Your task to perform on an android device: Search for vegetarian restaurants on Maps Image 0: 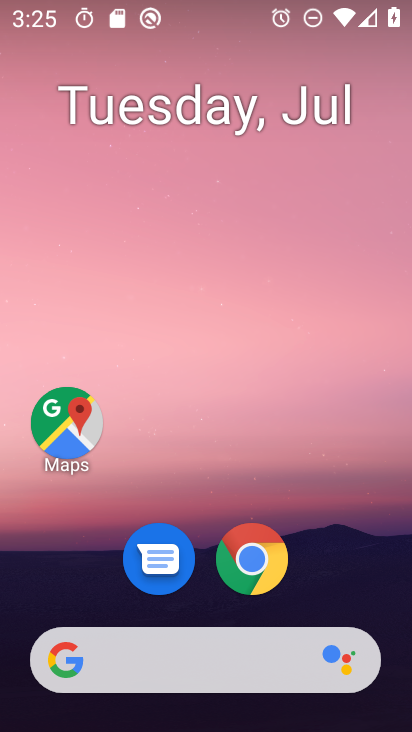
Step 0: drag from (375, 567) to (350, 174)
Your task to perform on an android device: Search for vegetarian restaurants on Maps Image 1: 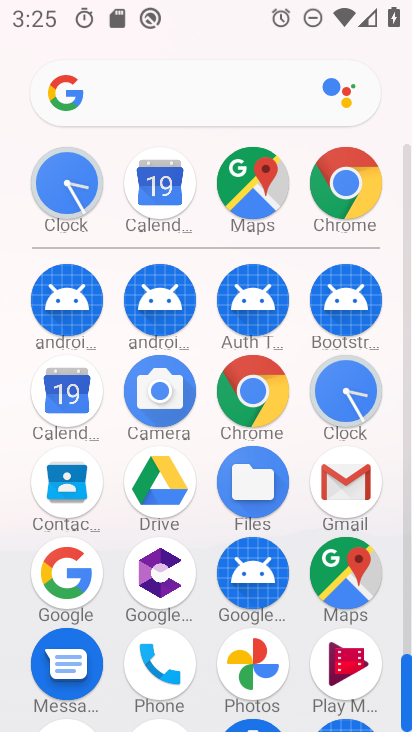
Step 1: click (338, 574)
Your task to perform on an android device: Search for vegetarian restaurants on Maps Image 2: 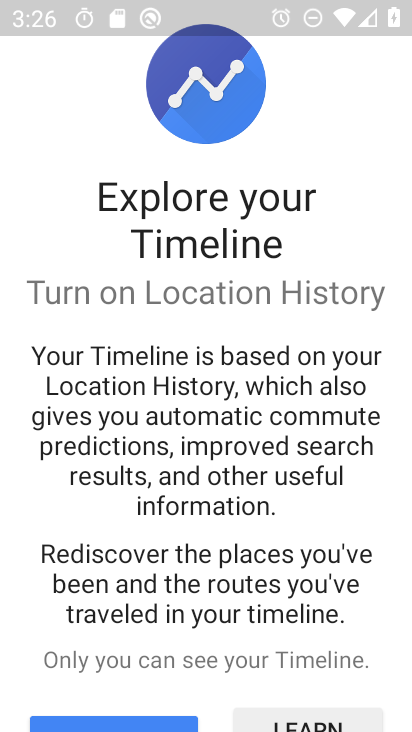
Step 2: press back button
Your task to perform on an android device: Search for vegetarian restaurants on Maps Image 3: 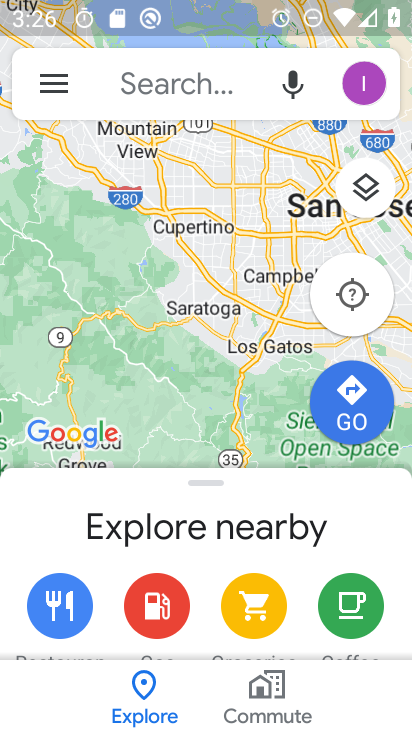
Step 3: click (171, 93)
Your task to perform on an android device: Search for vegetarian restaurants on Maps Image 4: 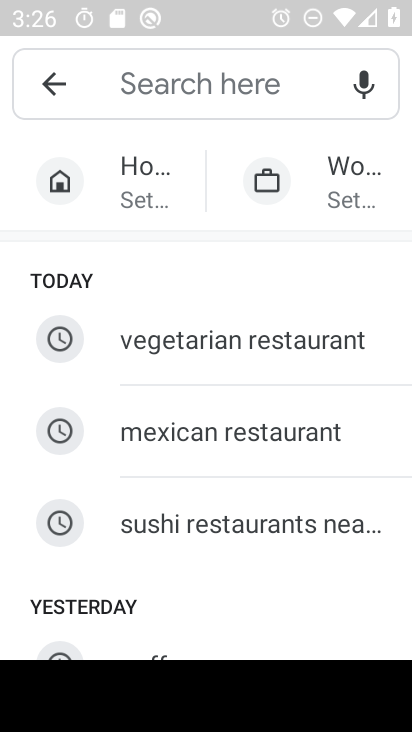
Step 4: type "vegetrain restaurants"
Your task to perform on an android device: Search for vegetarian restaurants on Maps Image 5: 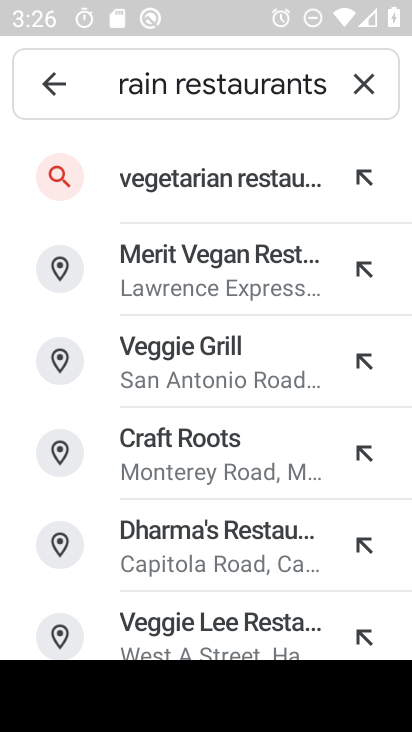
Step 5: click (323, 200)
Your task to perform on an android device: Search for vegetarian restaurants on Maps Image 6: 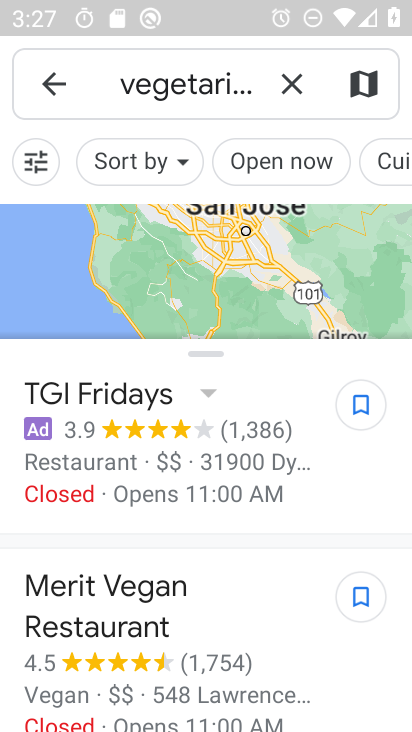
Step 6: task complete